Your task to perform on an android device: Open calendar and show me the first week of next month Image 0: 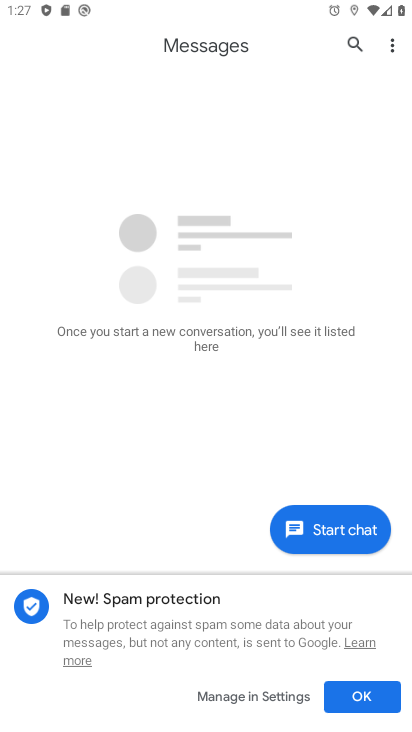
Step 0: press home button
Your task to perform on an android device: Open calendar and show me the first week of next month Image 1: 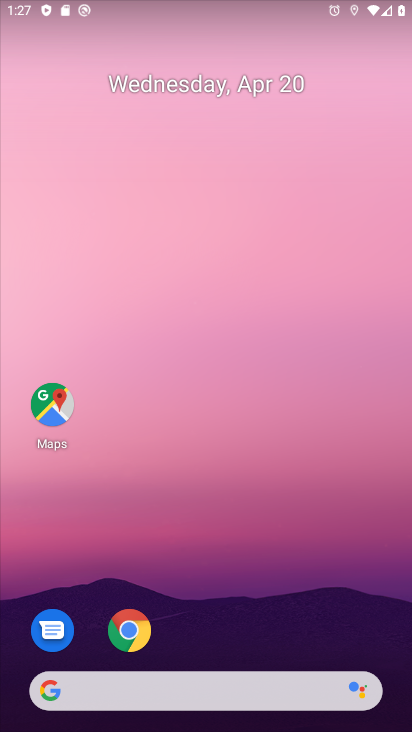
Step 1: drag from (234, 613) to (261, 58)
Your task to perform on an android device: Open calendar and show me the first week of next month Image 2: 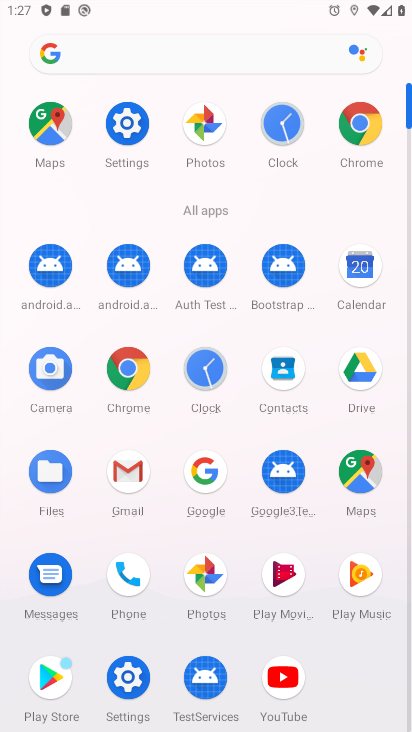
Step 2: click (354, 267)
Your task to perform on an android device: Open calendar and show me the first week of next month Image 3: 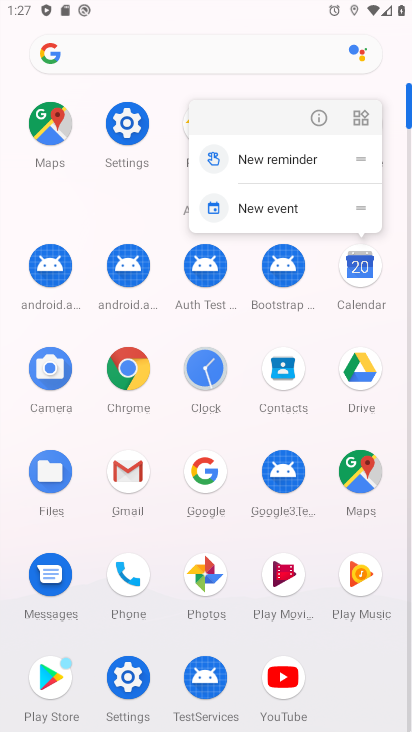
Step 3: click (360, 266)
Your task to perform on an android device: Open calendar and show me the first week of next month Image 4: 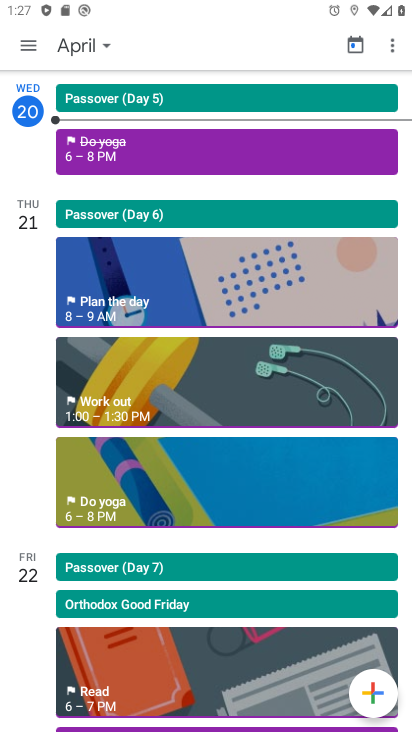
Step 4: click (103, 44)
Your task to perform on an android device: Open calendar and show me the first week of next month Image 5: 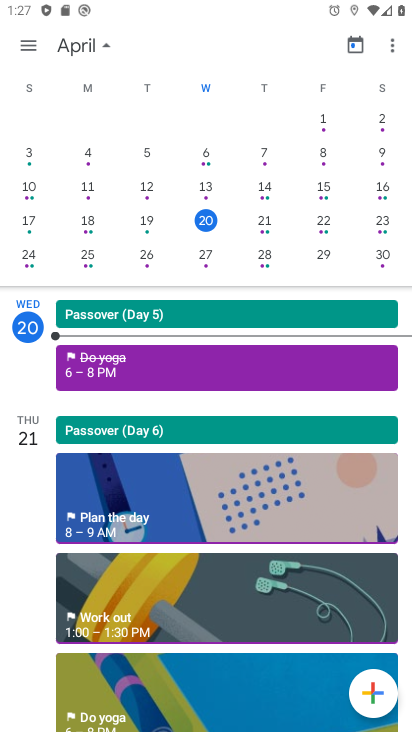
Step 5: drag from (288, 230) to (12, 216)
Your task to perform on an android device: Open calendar and show me the first week of next month Image 6: 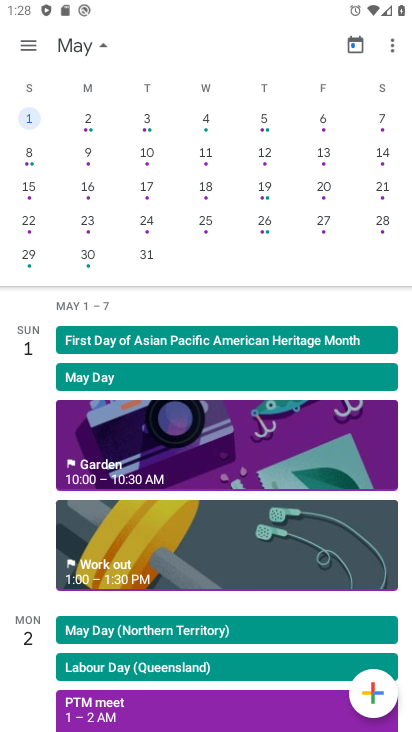
Step 6: click (29, 43)
Your task to perform on an android device: Open calendar and show me the first week of next month Image 7: 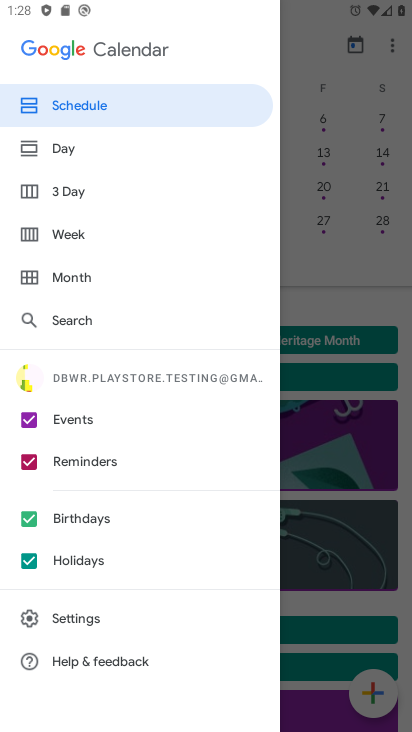
Step 7: click (63, 232)
Your task to perform on an android device: Open calendar and show me the first week of next month Image 8: 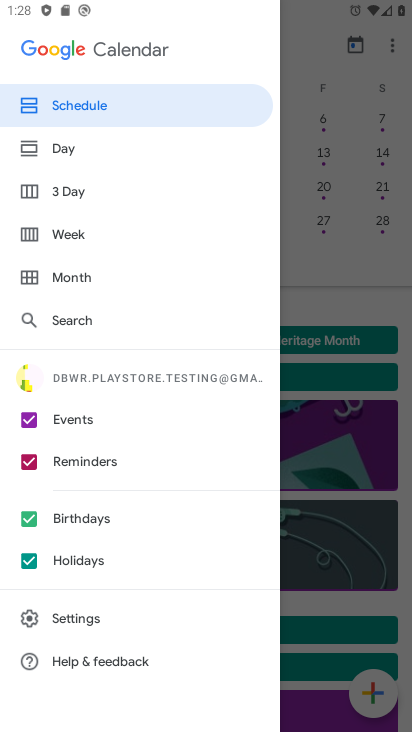
Step 8: click (72, 232)
Your task to perform on an android device: Open calendar and show me the first week of next month Image 9: 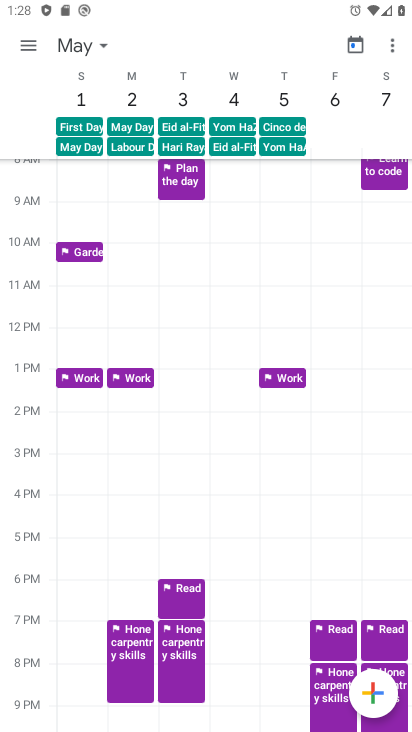
Step 9: task complete